Your task to perform on an android device: check the backup settings in the google photos Image 0: 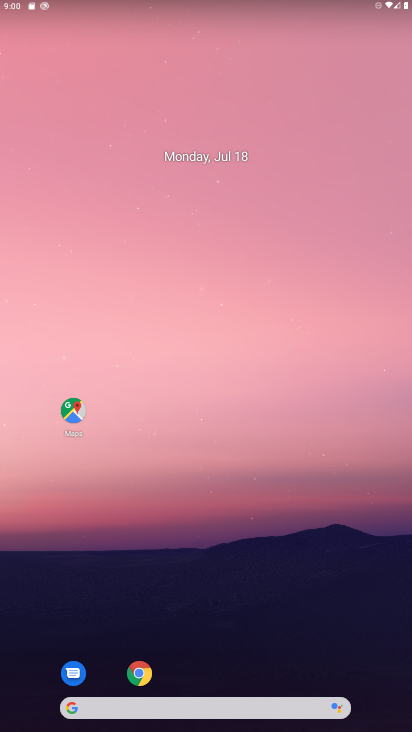
Step 0: press home button
Your task to perform on an android device: check the backup settings in the google photos Image 1: 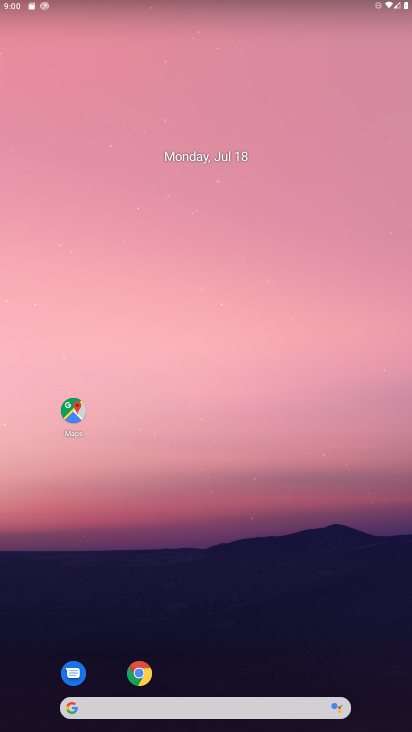
Step 1: drag from (258, 672) to (335, 135)
Your task to perform on an android device: check the backup settings in the google photos Image 2: 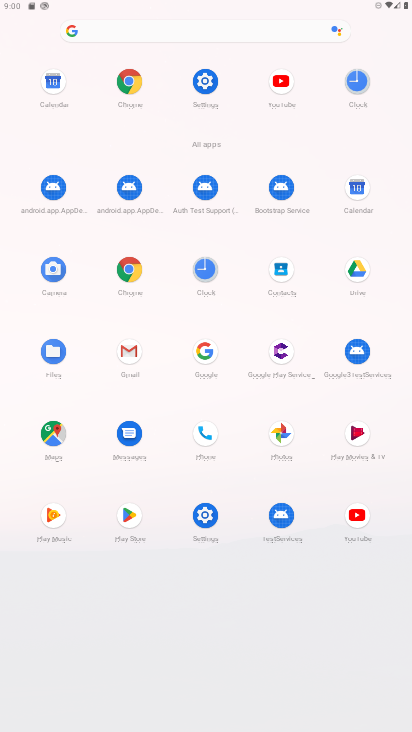
Step 2: click (282, 433)
Your task to perform on an android device: check the backup settings in the google photos Image 3: 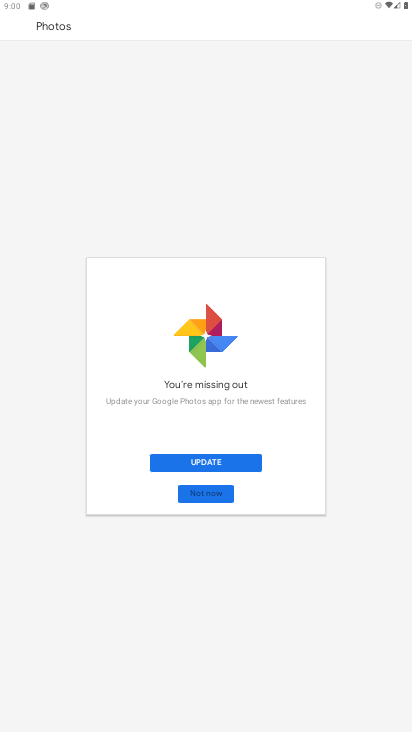
Step 3: click (190, 463)
Your task to perform on an android device: check the backup settings in the google photos Image 4: 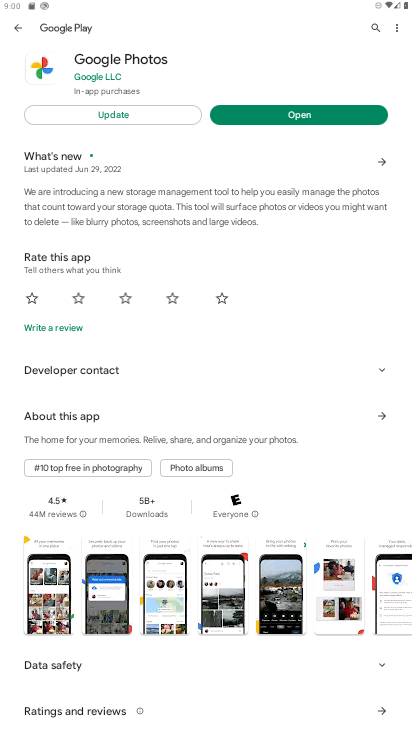
Step 4: click (123, 114)
Your task to perform on an android device: check the backup settings in the google photos Image 5: 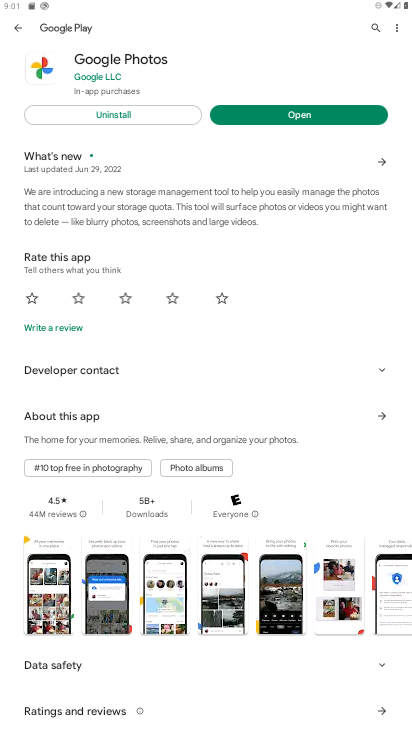
Step 5: click (271, 111)
Your task to perform on an android device: check the backup settings in the google photos Image 6: 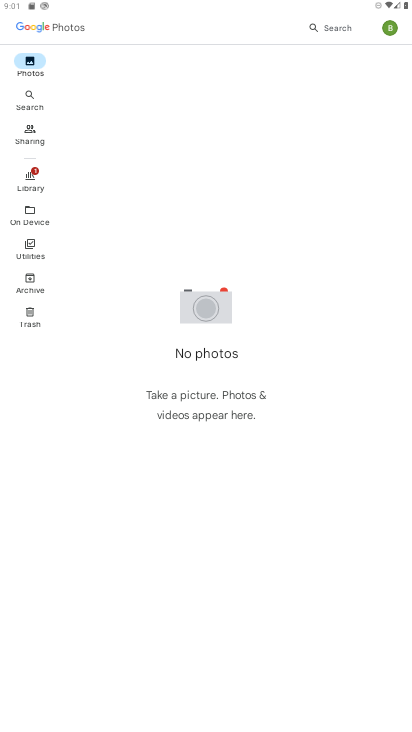
Step 6: click (396, 24)
Your task to perform on an android device: check the backup settings in the google photos Image 7: 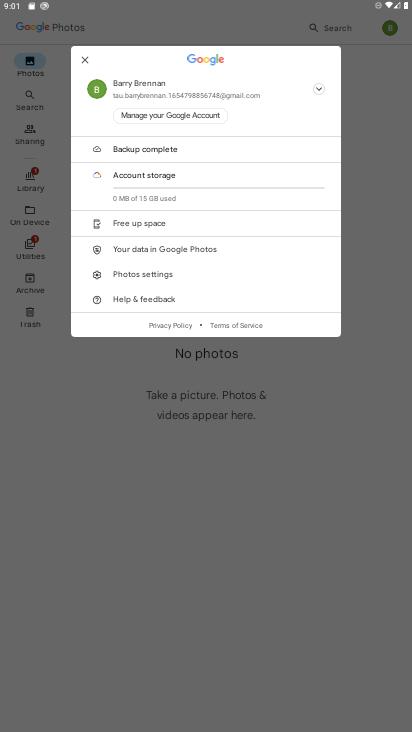
Step 7: click (144, 274)
Your task to perform on an android device: check the backup settings in the google photos Image 8: 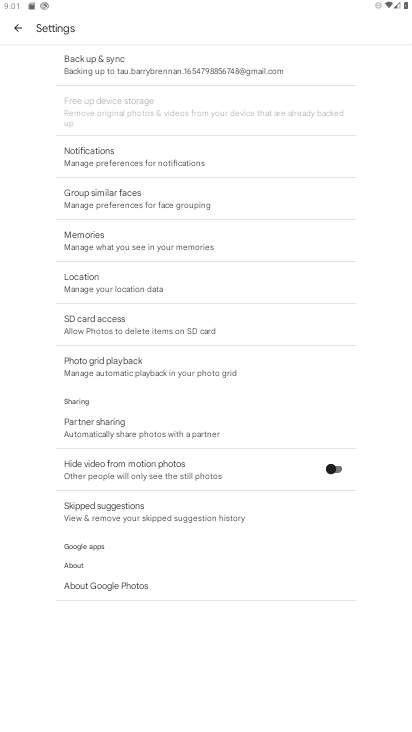
Step 8: click (78, 67)
Your task to perform on an android device: check the backup settings in the google photos Image 9: 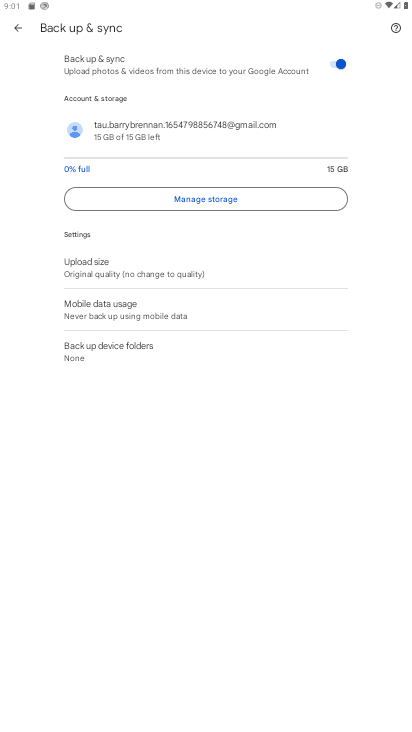
Step 9: task complete